Your task to perform on an android device: turn off javascript in the chrome app Image 0: 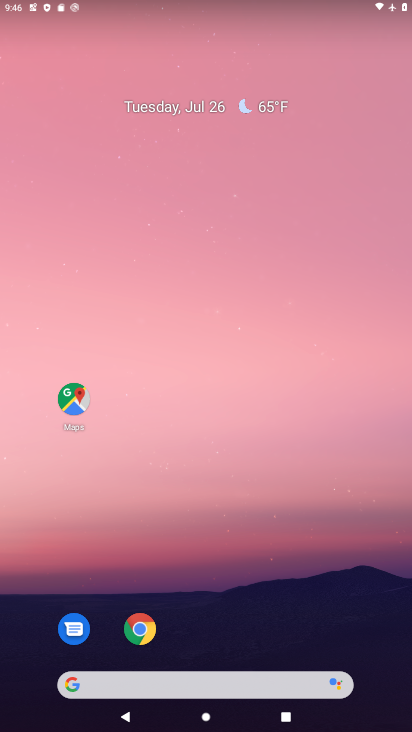
Step 0: drag from (287, 586) to (247, 50)
Your task to perform on an android device: turn off javascript in the chrome app Image 1: 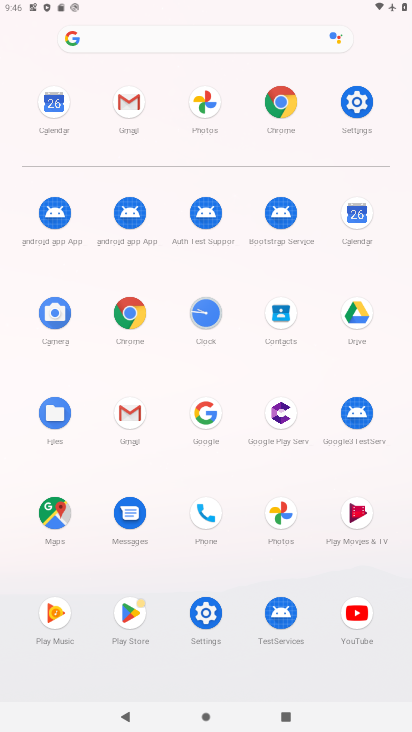
Step 1: click (282, 101)
Your task to perform on an android device: turn off javascript in the chrome app Image 2: 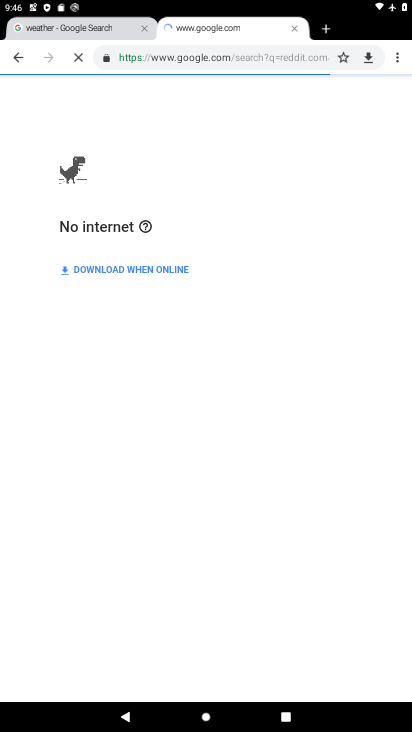
Step 2: drag from (398, 61) to (274, 355)
Your task to perform on an android device: turn off javascript in the chrome app Image 3: 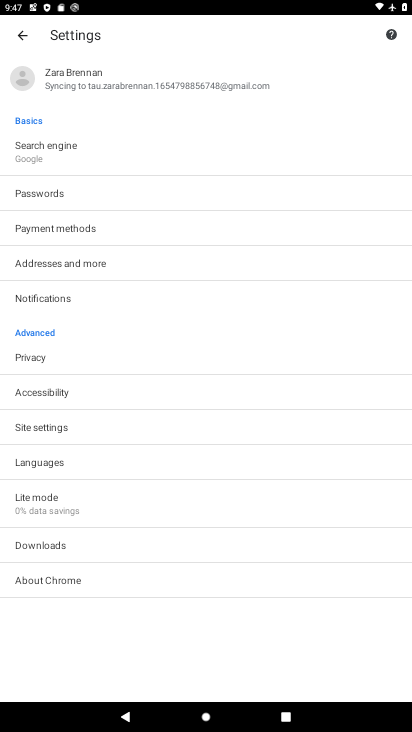
Step 3: click (51, 426)
Your task to perform on an android device: turn off javascript in the chrome app Image 4: 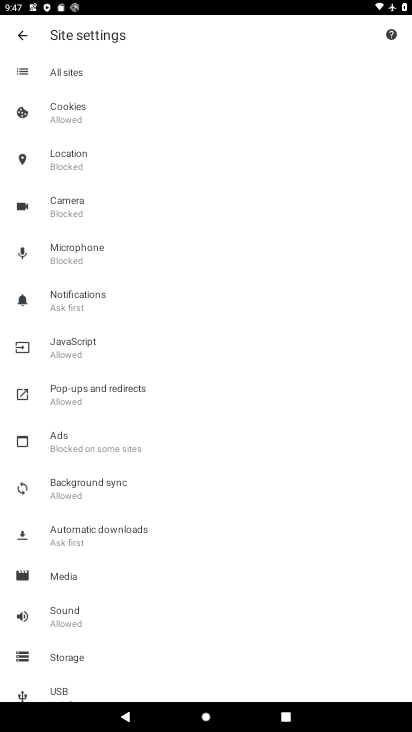
Step 4: click (77, 344)
Your task to perform on an android device: turn off javascript in the chrome app Image 5: 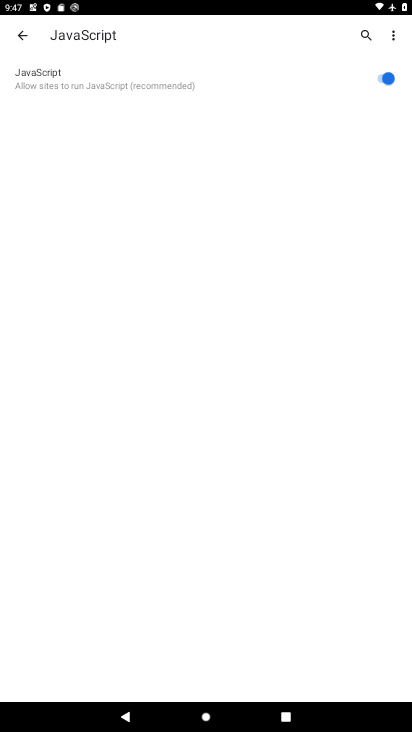
Step 5: click (389, 80)
Your task to perform on an android device: turn off javascript in the chrome app Image 6: 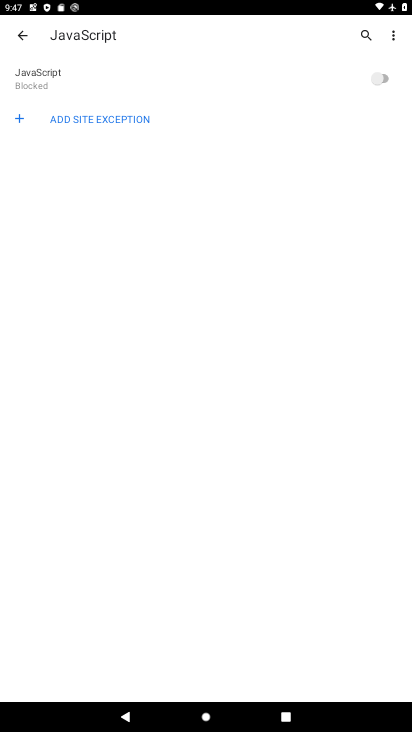
Step 6: task complete